Your task to perform on an android device: Open Reddit.com Image 0: 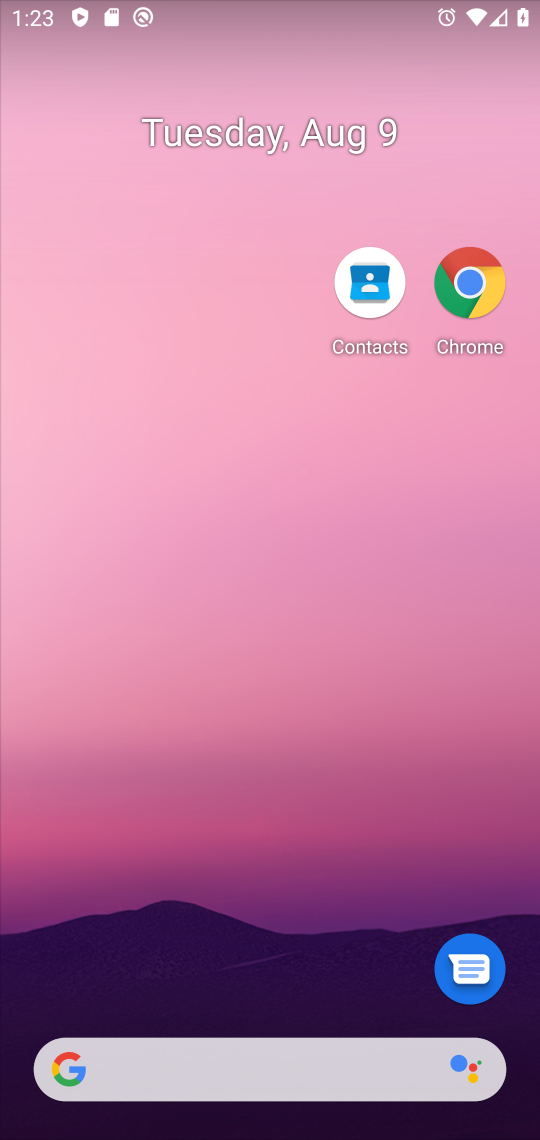
Step 0: drag from (246, 373) to (246, 308)
Your task to perform on an android device: Open Reddit.com Image 1: 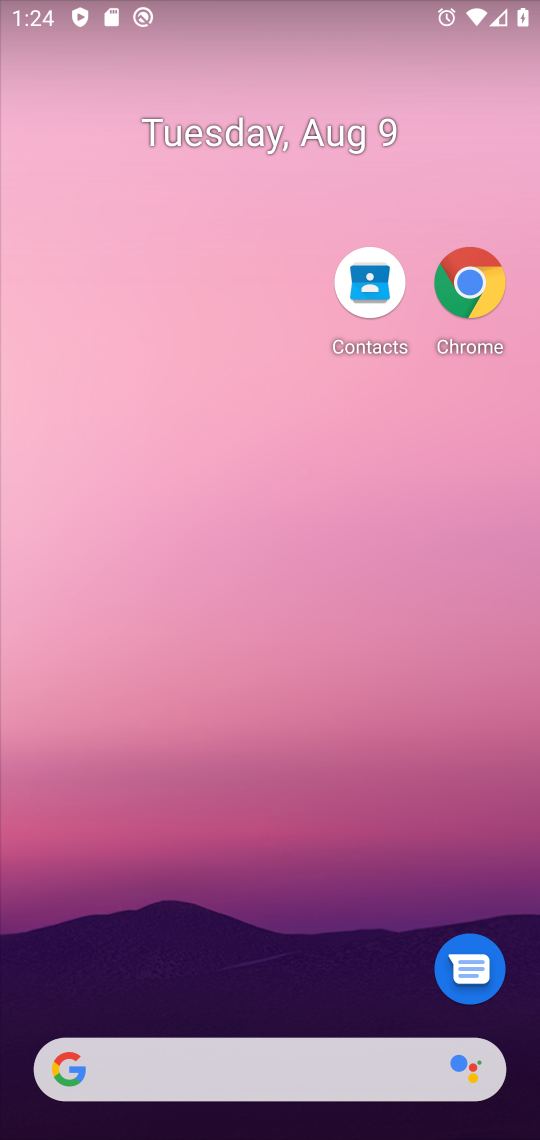
Step 1: drag from (256, 927) to (312, 456)
Your task to perform on an android device: Open Reddit.com Image 2: 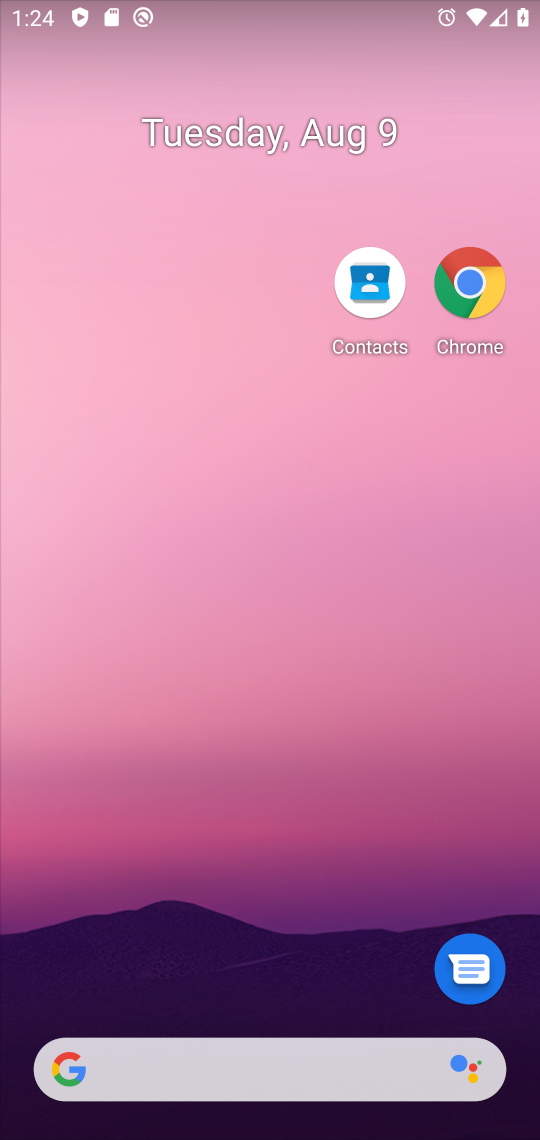
Step 2: drag from (267, 971) to (329, 494)
Your task to perform on an android device: Open Reddit.com Image 3: 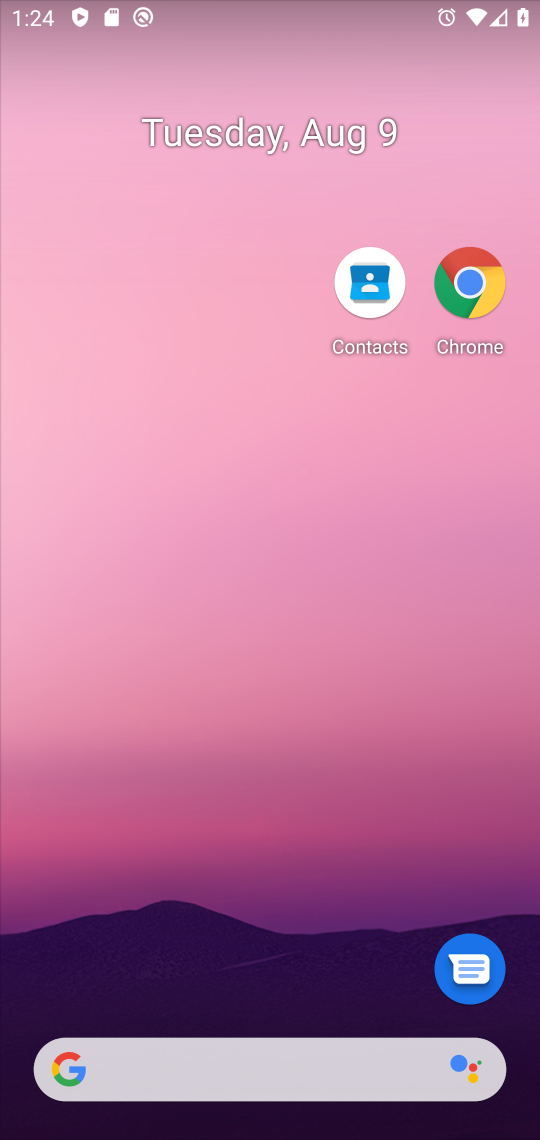
Step 3: drag from (237, 828) to (236, 559)
Your task to perform on an android device: Open Reddit.com Image 4: 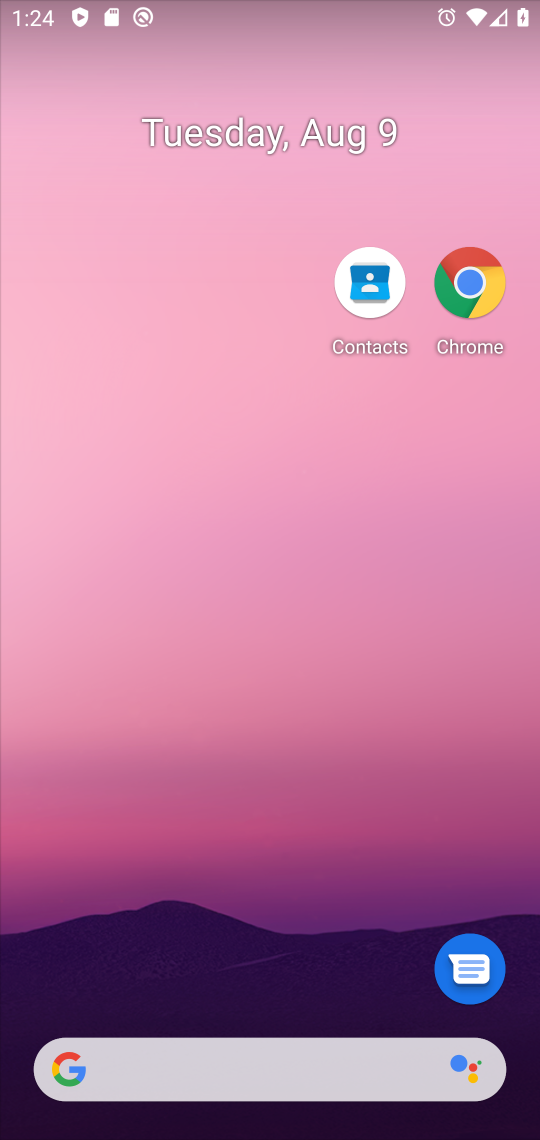
Step 4: drag from (264, 660) to (318, 290)
Your task to perform on an android device: Open Reddit.com Image 5: 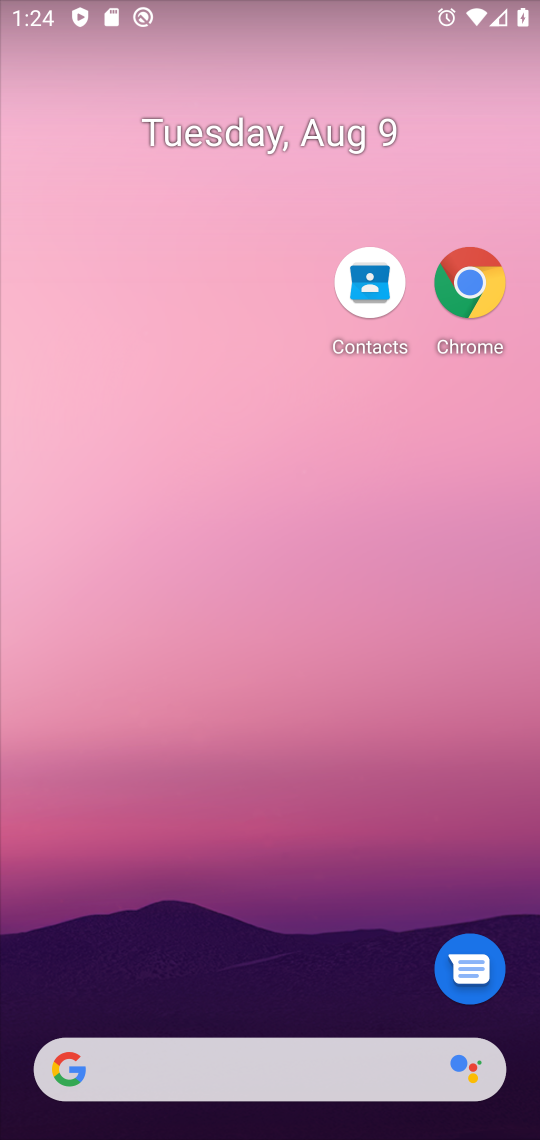
Step 5: drag from (237, 574) to (237, 490)
Your task to perform on an android device: Open Reddit.com Image 6: 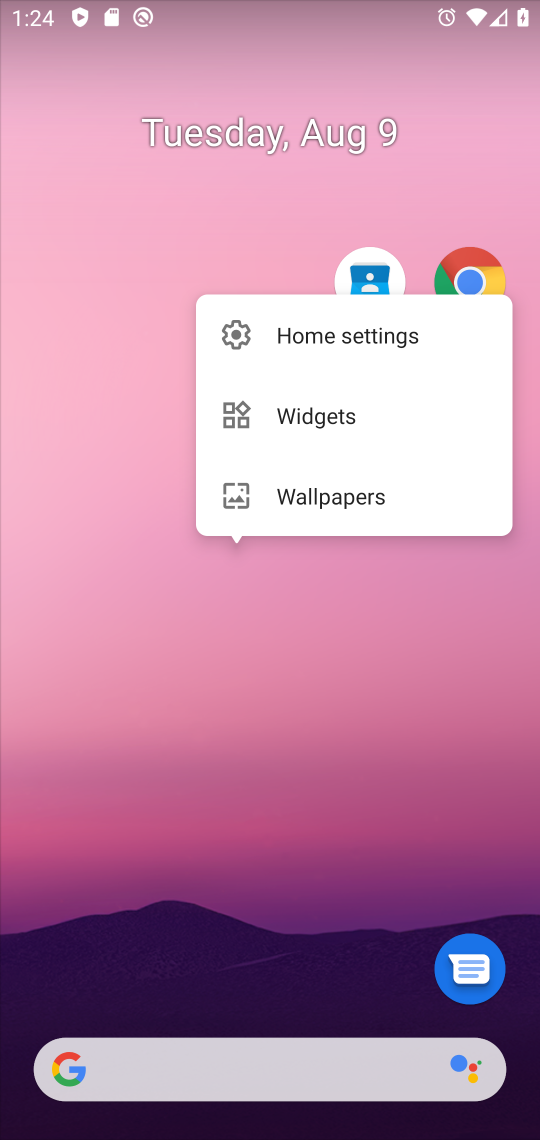
Step 6: drag from (238, 186) to (260, 47)
Your task to perform on an android device: Open Reddit.com Image 7: 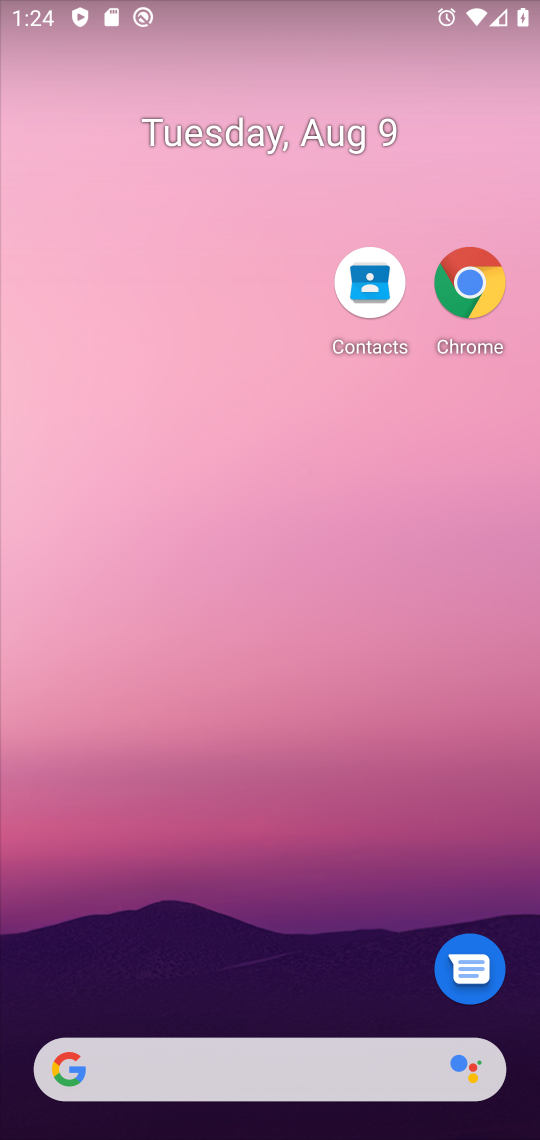
Step 7: drag from (294, 88) to (107, 5)
Your task to perform on an android device: Open Reddit.com Image 8: 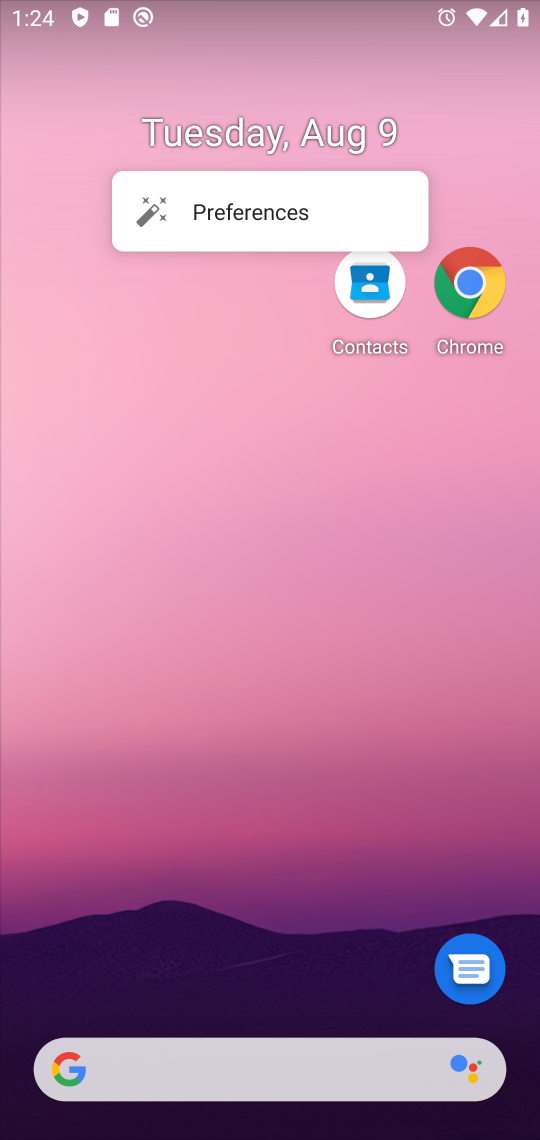
Step 8: click (281, 332)
Your task to perform on an android device: Open Reddit.com Image 9: 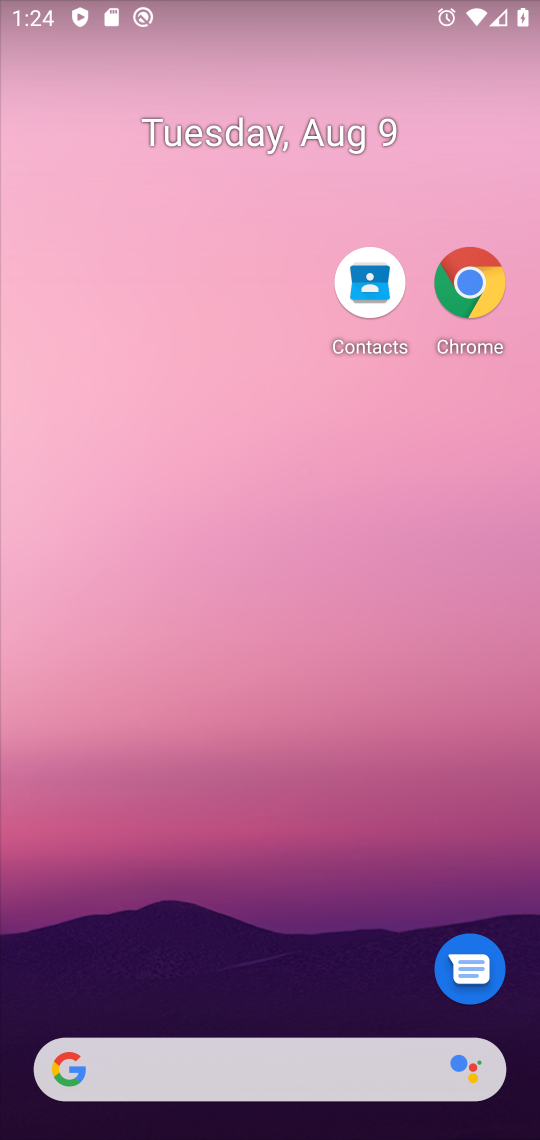
Step 9: drag from (311, 932) to (271, 499)
Your task to perform on an android device: Open Reddit.com Image 10: 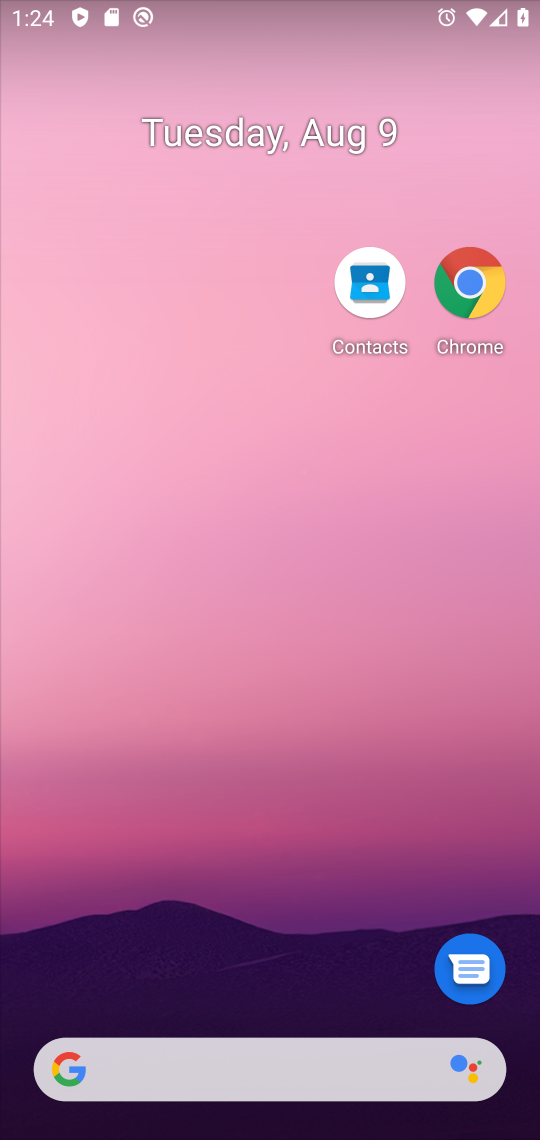
Step 10: click (338, 336)
Your task to perform on an android device: Open Reddit.com Image 11: 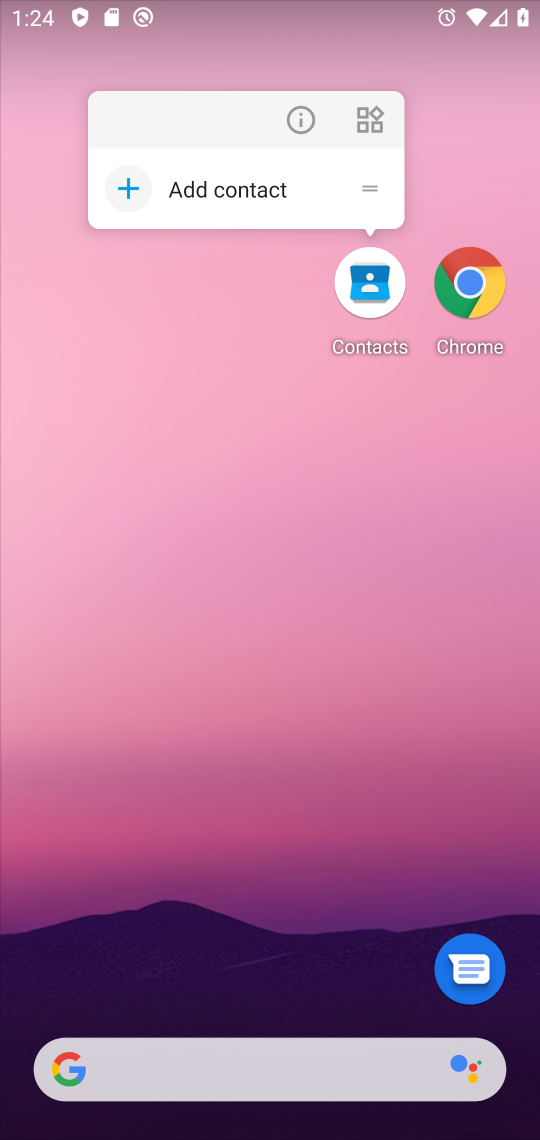
Step 11: drag from (357, 288) to (376, 160)
Your task to perform on an android device: Open Reddit.com Image 12: 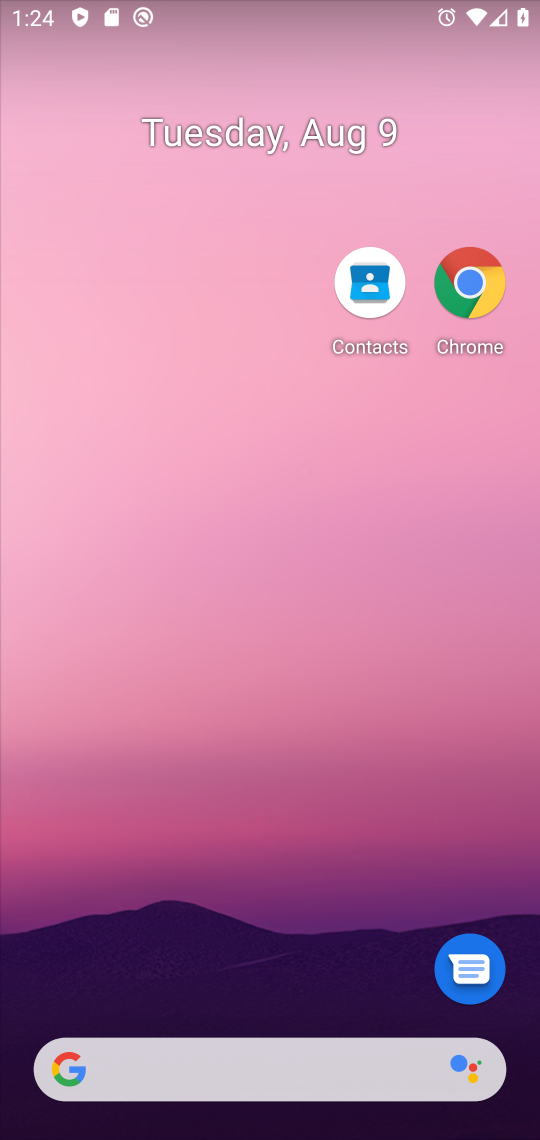
Step 12: drag from (214, 261) to (234, 17)
Your task to perform on an android device: Open Reddit.com Image 13: 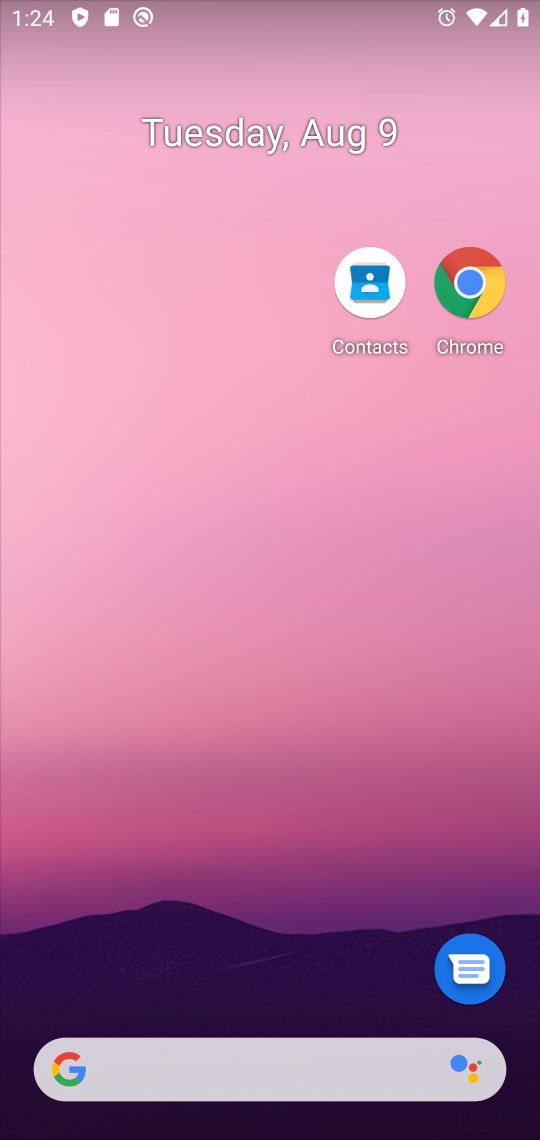
Step 13: drag from (267, 417) to (277, 222)
Your task to perform on an android device: Open Reddit.com Image 14: 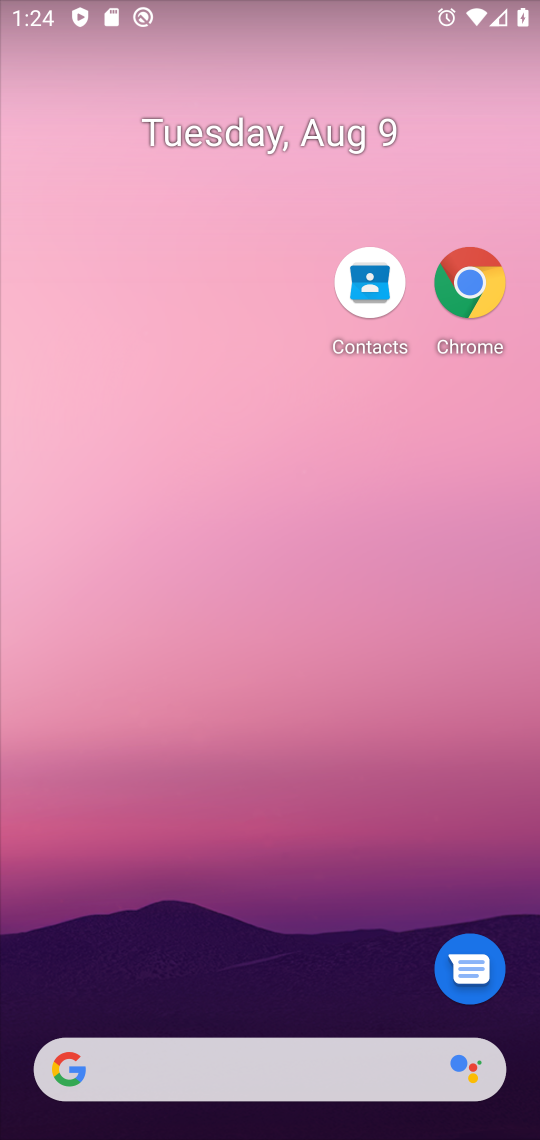
Step 14: drag from (252, 321) to (252, 107)
Your task to perform on an android device: Open Reddit.com Image 15: 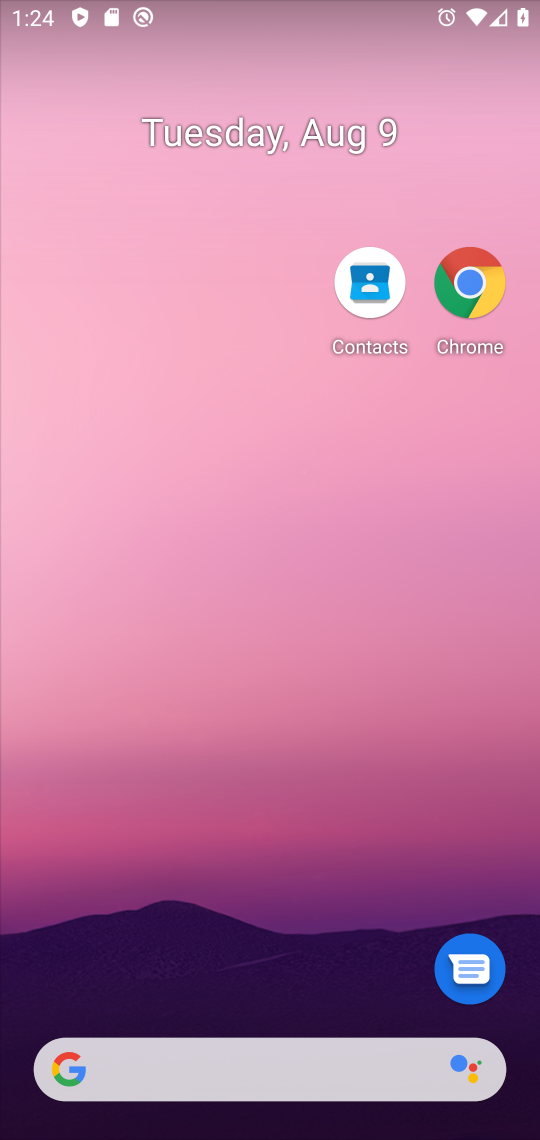
Step 15: drag from (289, 941) to (248, 64)
Your task to perform on an android device: Open Reddit.com Image 16: 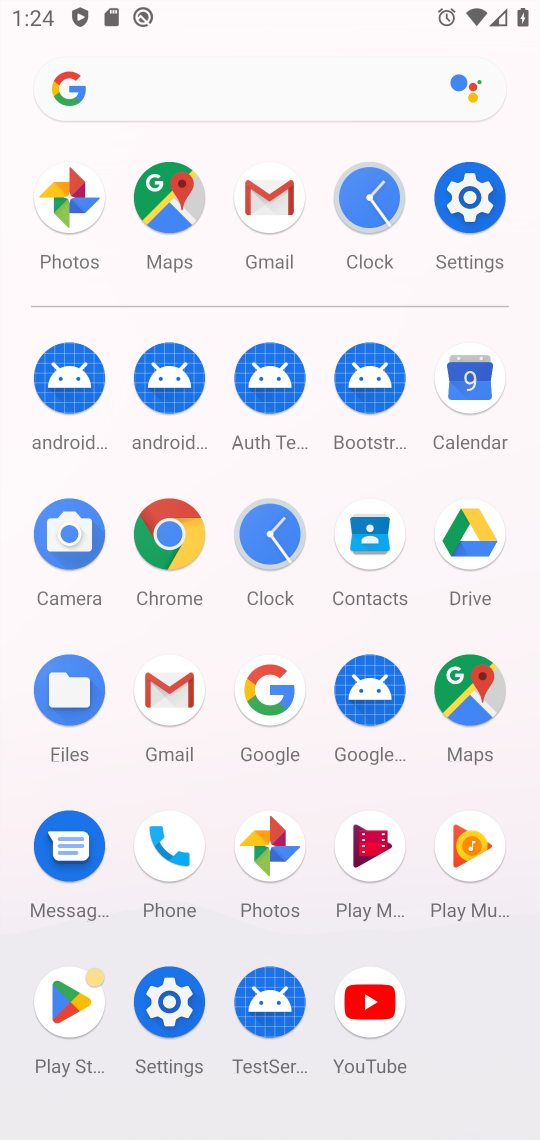
Step 16: drag from (326, 805) to (341, 388)
Your task to perform on an android device: Open Reddit.com Image 17: 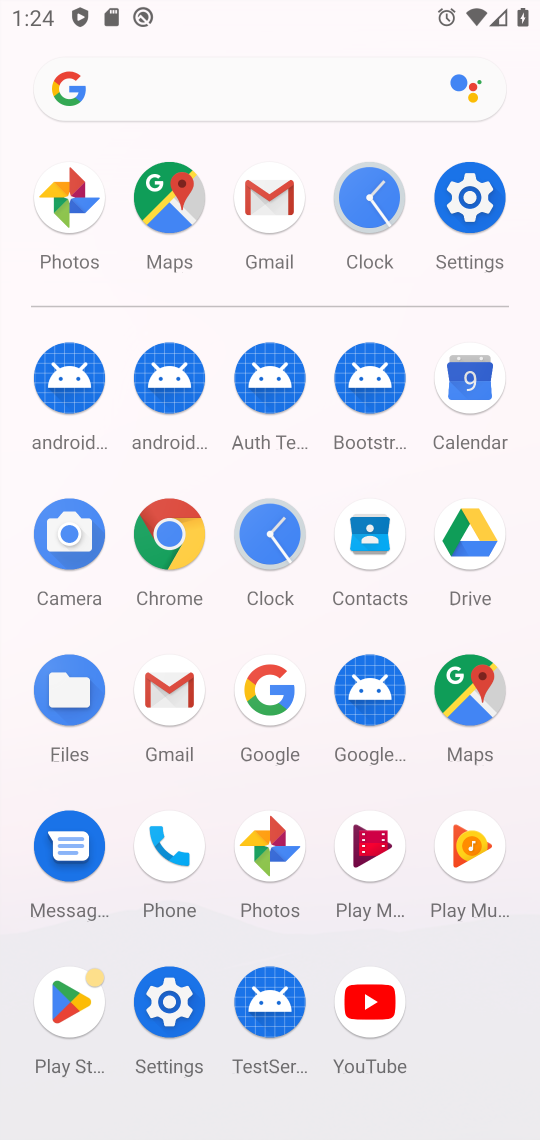
Step 17: drag from (323, 607) to (332, 509)
Your task to perform on an android device: Open Reddit.com Image 18: 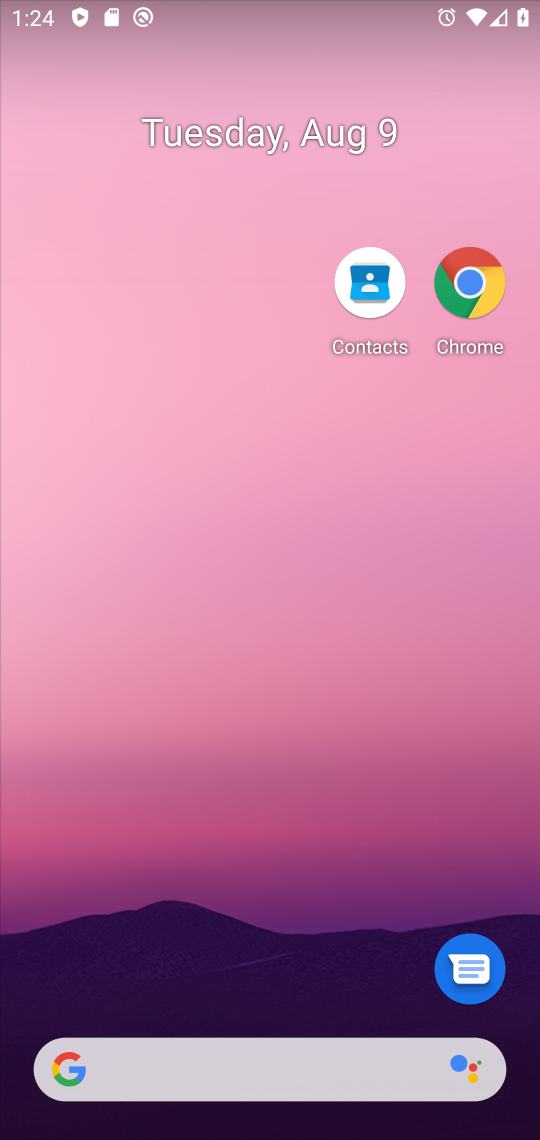
Step 18: drag from (276, 949) to (298, 199)
Your task to perform on an android device: Open Reddit.com Image 19: 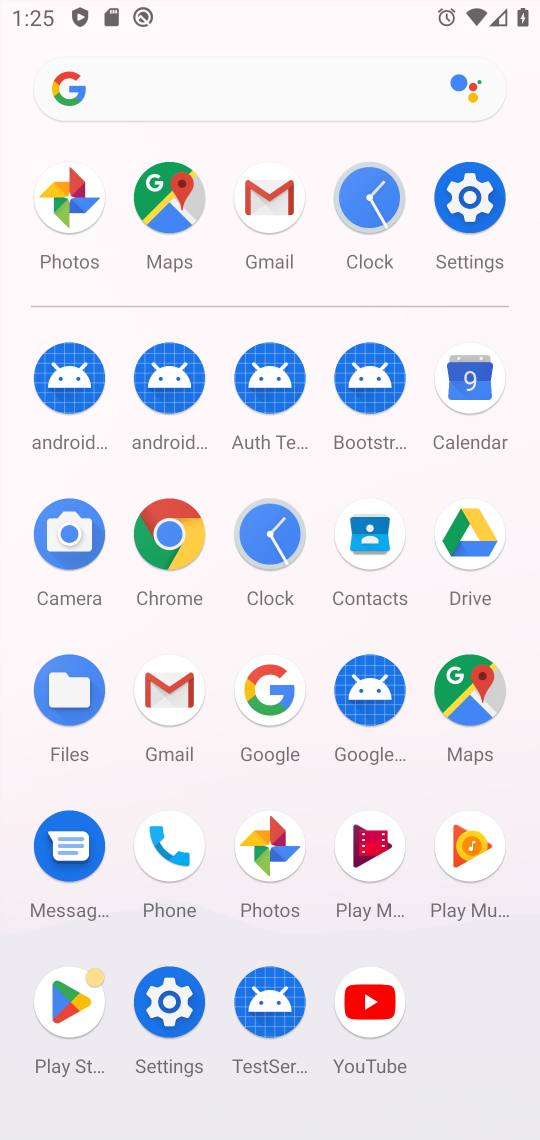
Step 19: click (212, 83)
Your task to perform on an android device: Open Reddit.com Image 20: 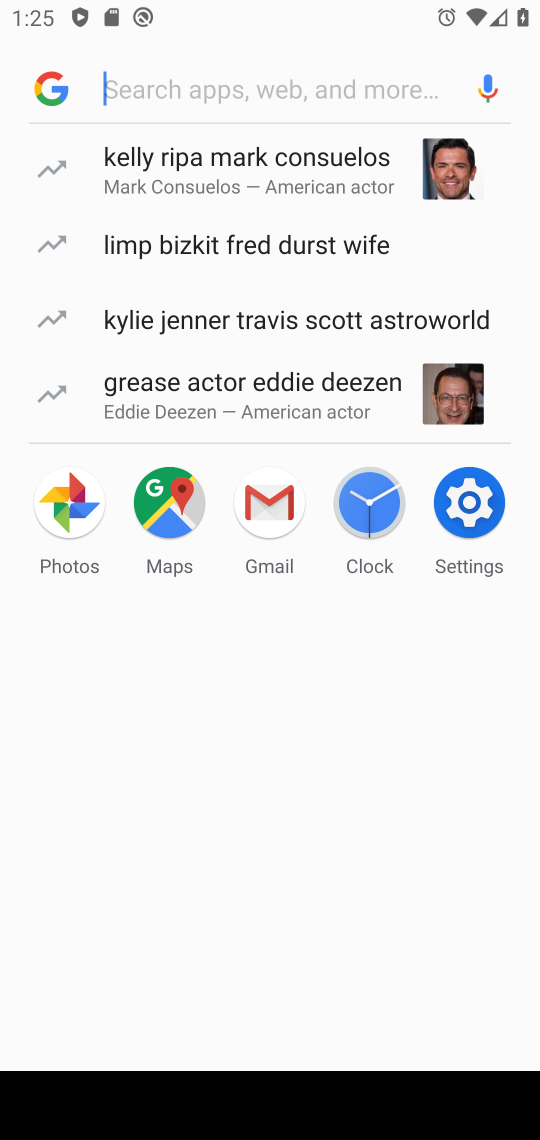
Step 20: type "Reddit.com"
Your task to perform on an android device: Open Reddit.com Image 21: 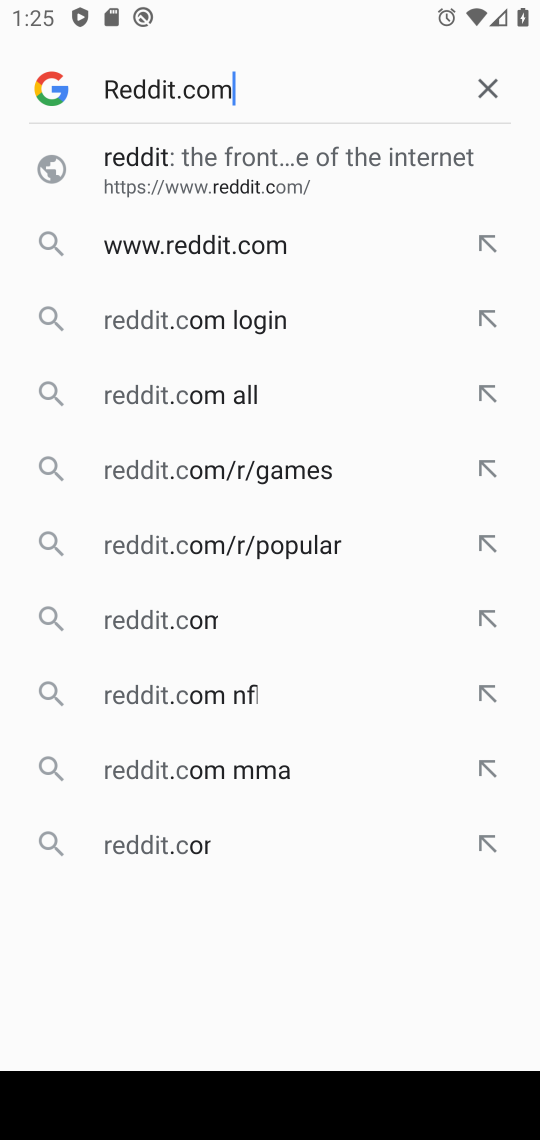
Step 21: type ""
Your task to perform on an android device: Open Reddit.com Image 22: 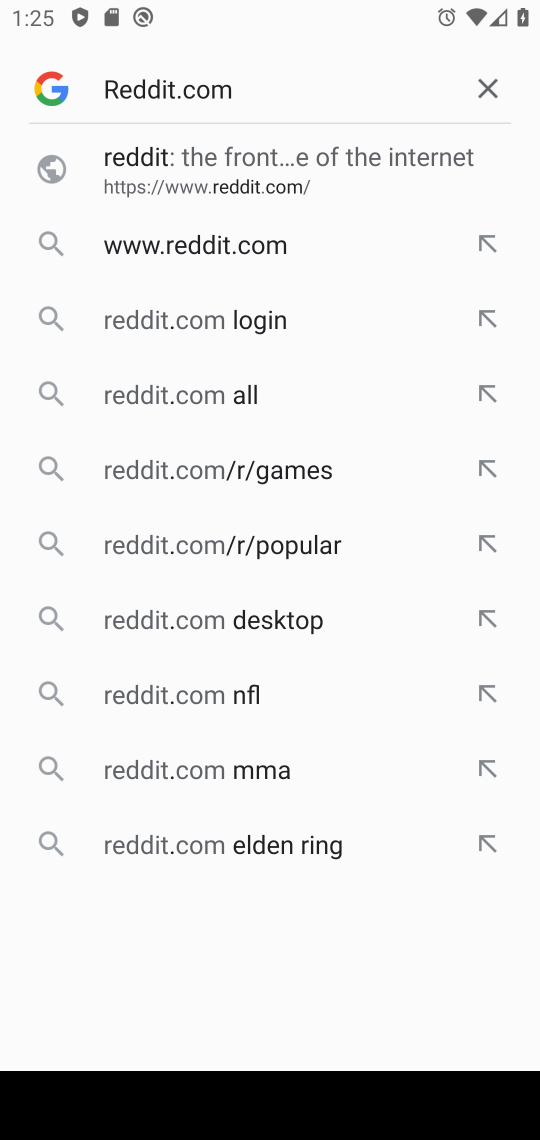
Step 22: click (172, 158)
Your task to perform on an android device: Open Reddit.com Image 23: 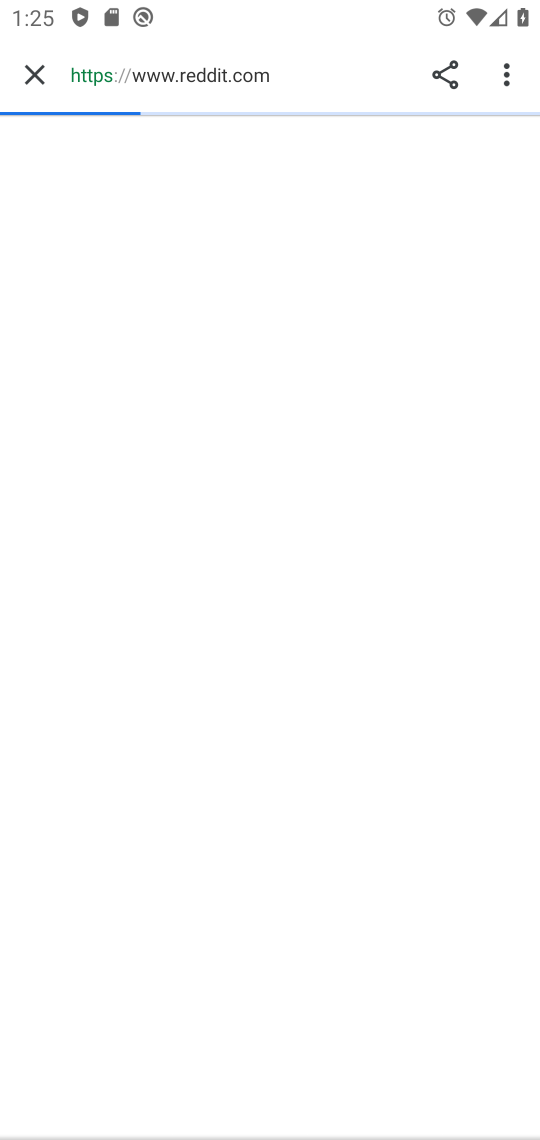
Step 23: task complete